Your task to perform on an android device: turn off sleep mode Image 0: 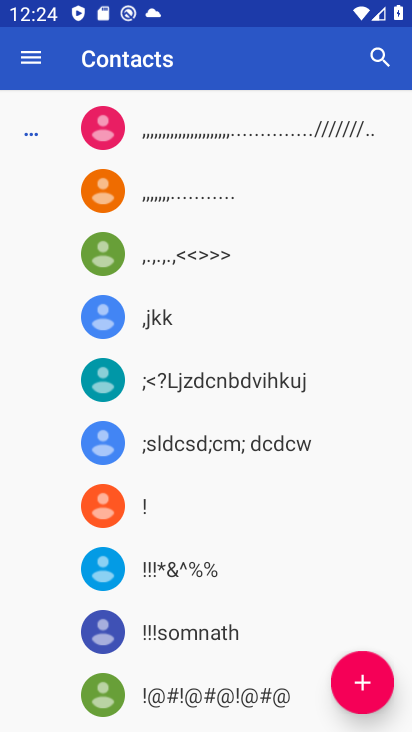
Step 0: press home button
Your task to perform on an android device: turn off sleep mode Image 1: 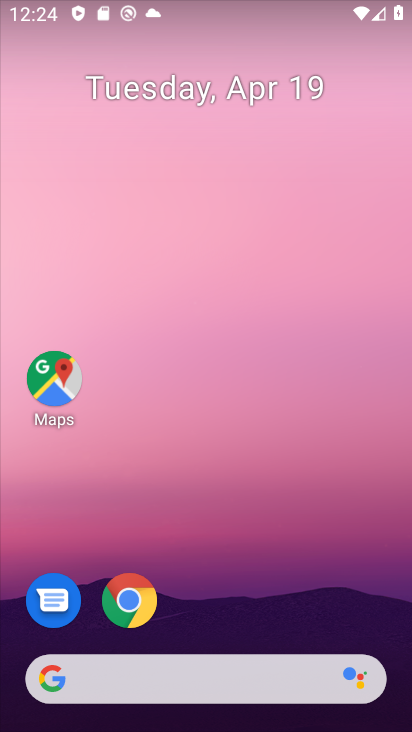
Step 1: drag from (210, 640) to (200, 6)
Your task to perform on an android device: turn off sleep mode Image 2: 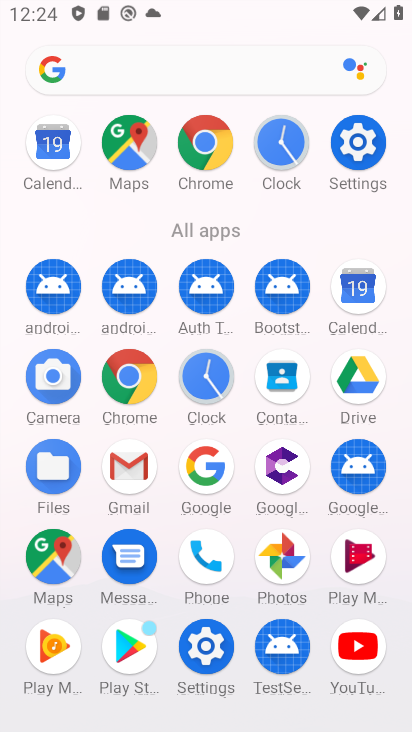
Step 2: click (352, 147)
Your task to perform on an android device: turn off sleep mode Image 3: 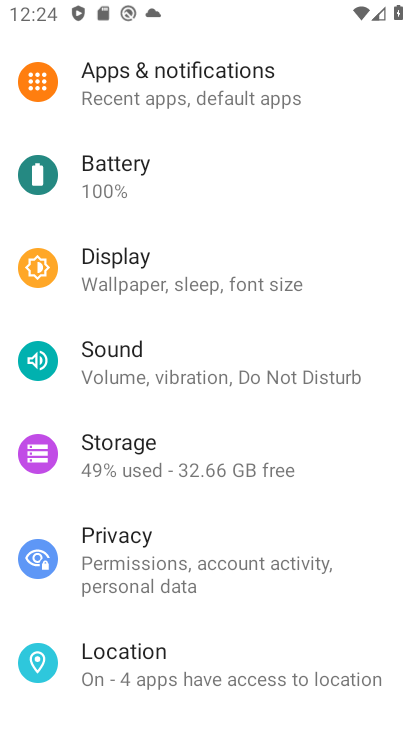
Step 3: click (97, 277)
Your task to perform on an android device: turn off sleep mode Image 4: 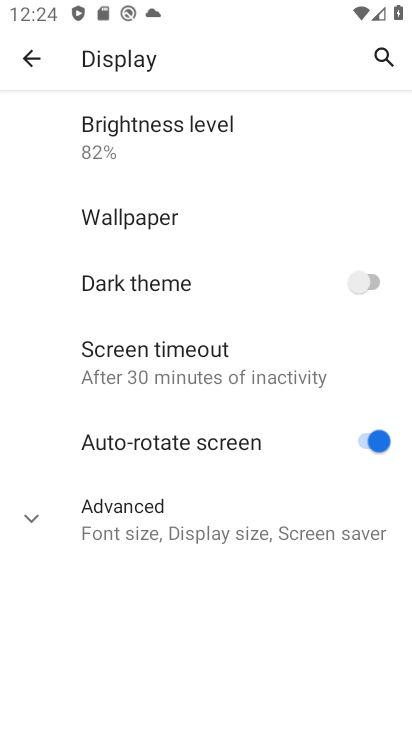
Step 4: task complete